Your task to perform on an android device: delete location history Image 0: 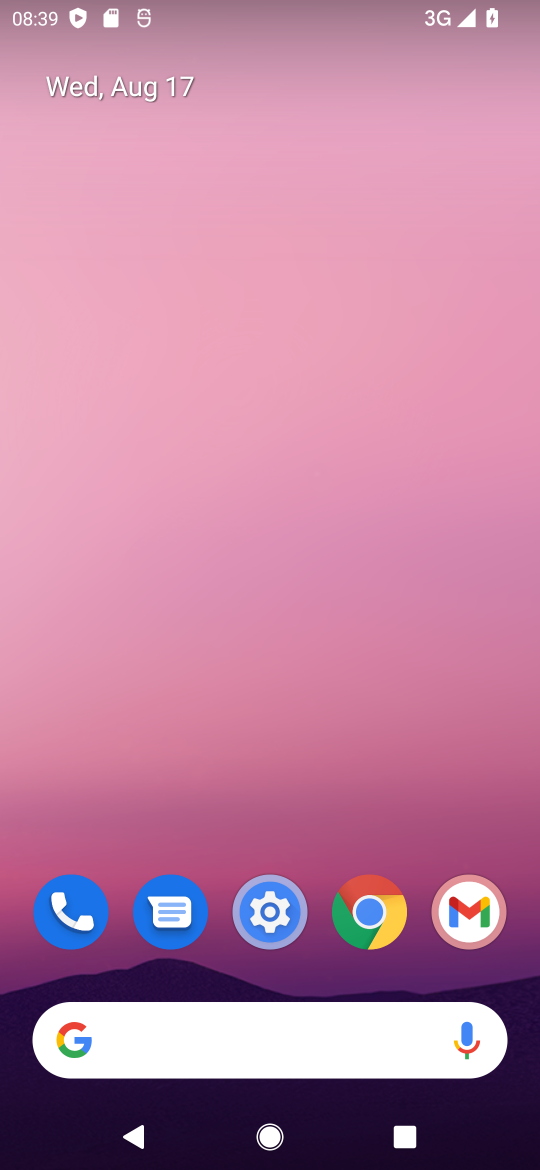
Step 0: click (272, 919)
Your task to perform on an android device: delete location history Image 1: 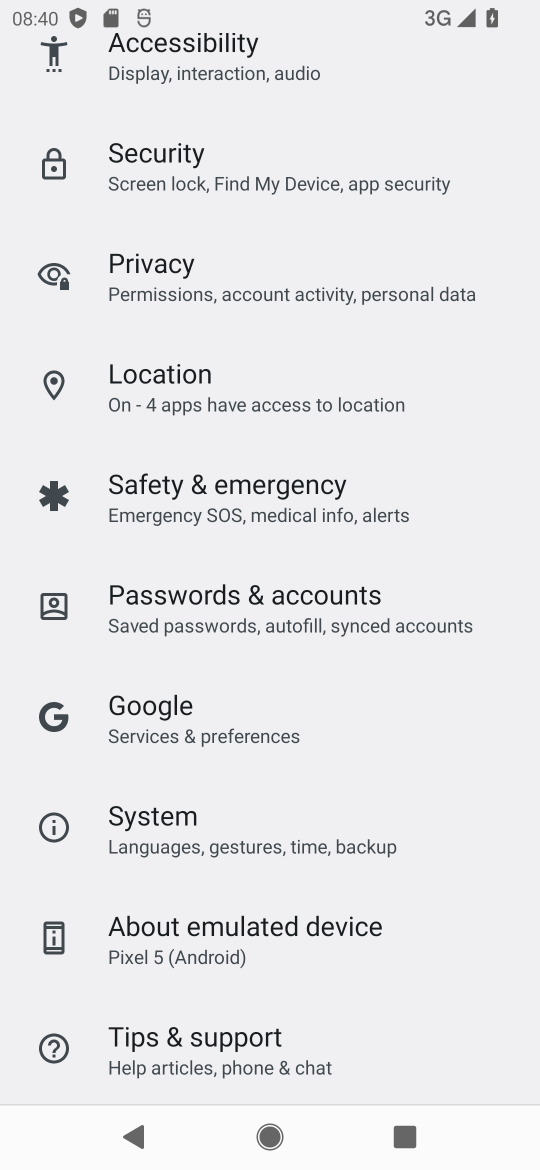
Step 1: click (147, 385)
Your task to perform on an android device: delete location history Image 2: 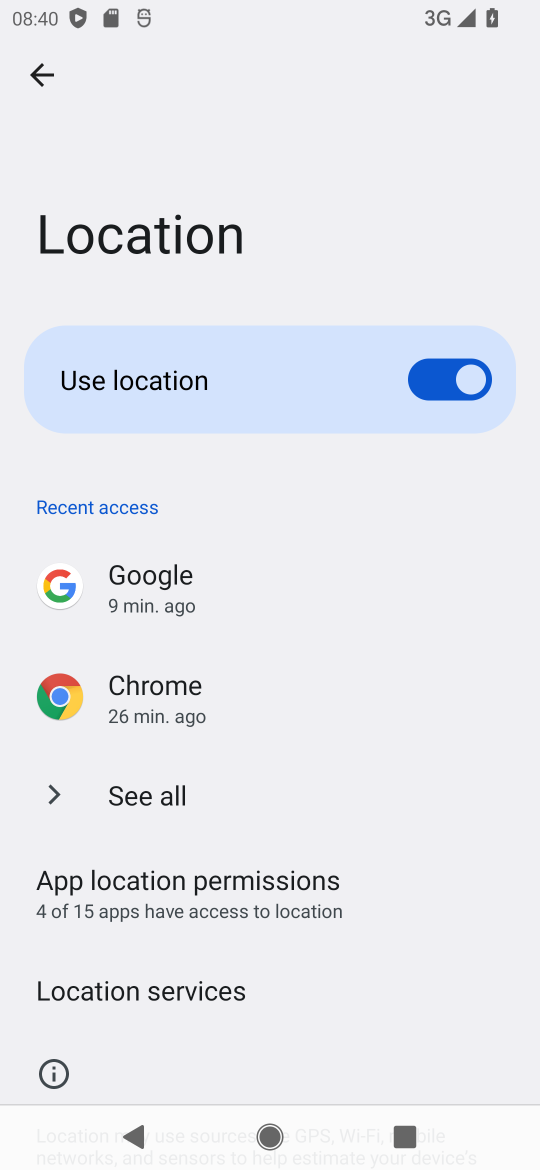
Step 2: drag from (125, 1014) to (125, 519)
Your task to perform on an android device: delete location history Image 3: 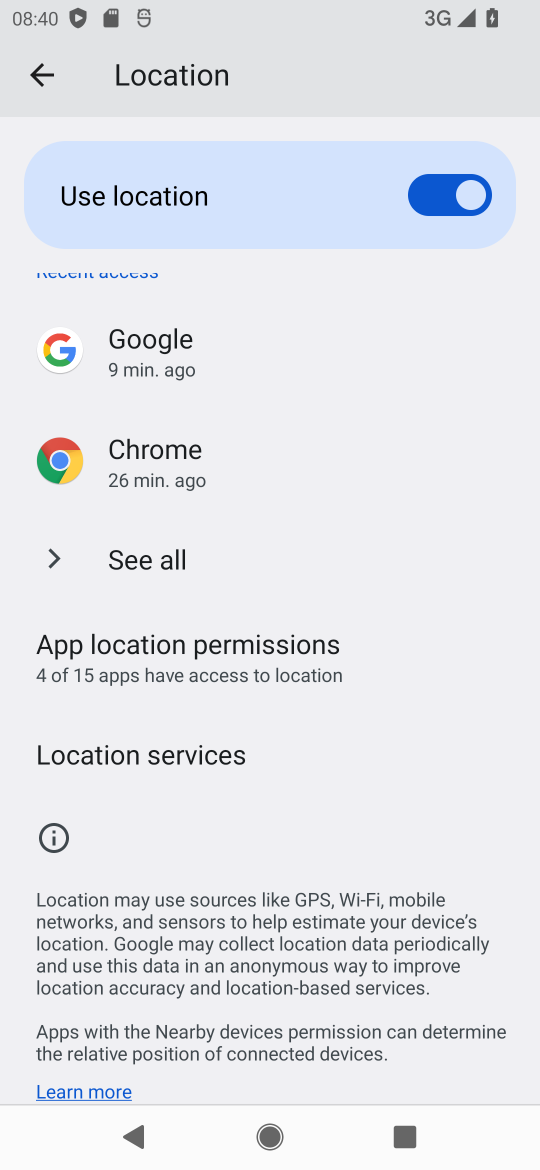
Step 3: click (166, 754)
Your task to perform on an android device: delete location history Image 4: 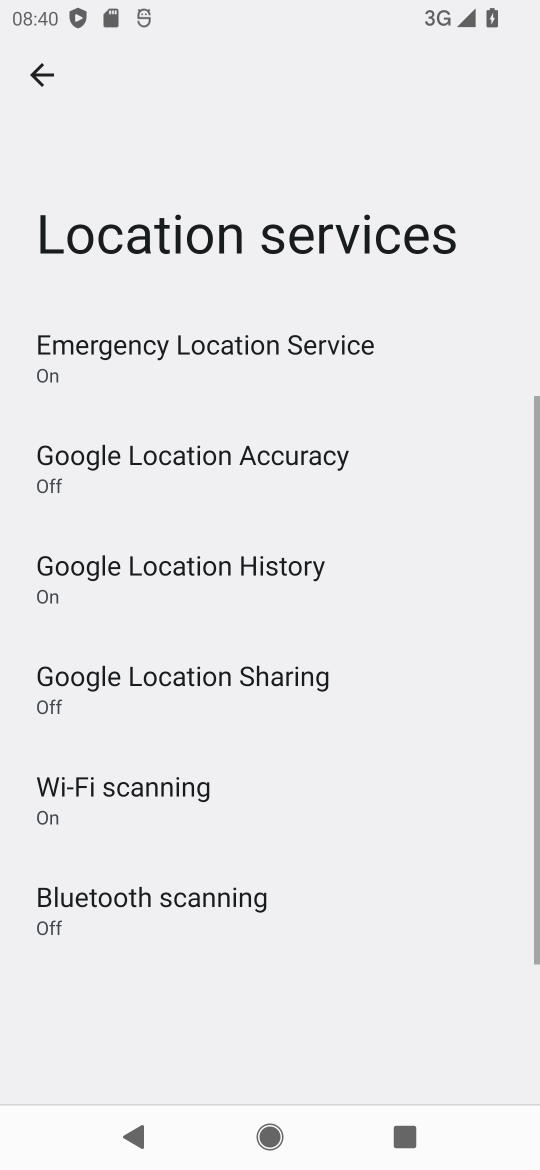
Step 4: click (187, 557)
Your task to perform on an android device: delete location history Image 5: 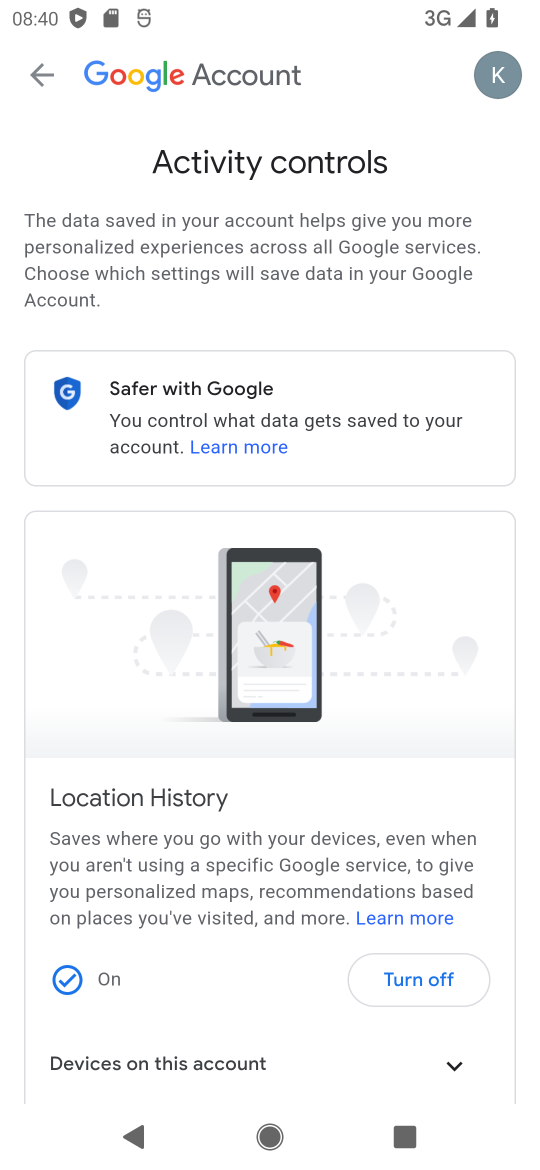
Step 5: drag from (247, 937) to (275, 455)
Your task to perform on an android device: delete location history Image 6: 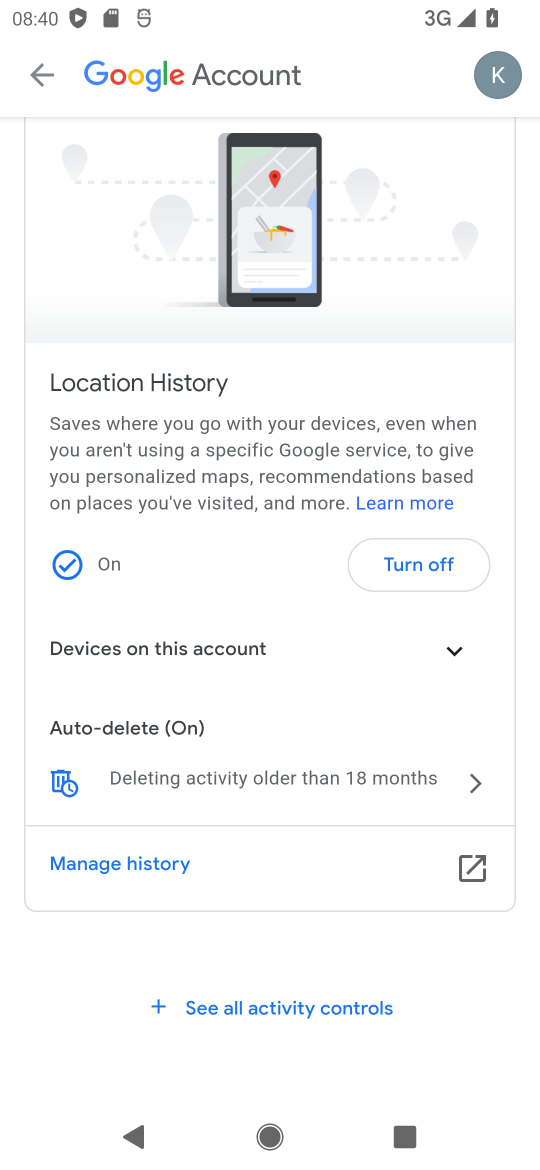
Step 6: click (166, 935)
Your task to perform on an android device: delete location history Image 7: 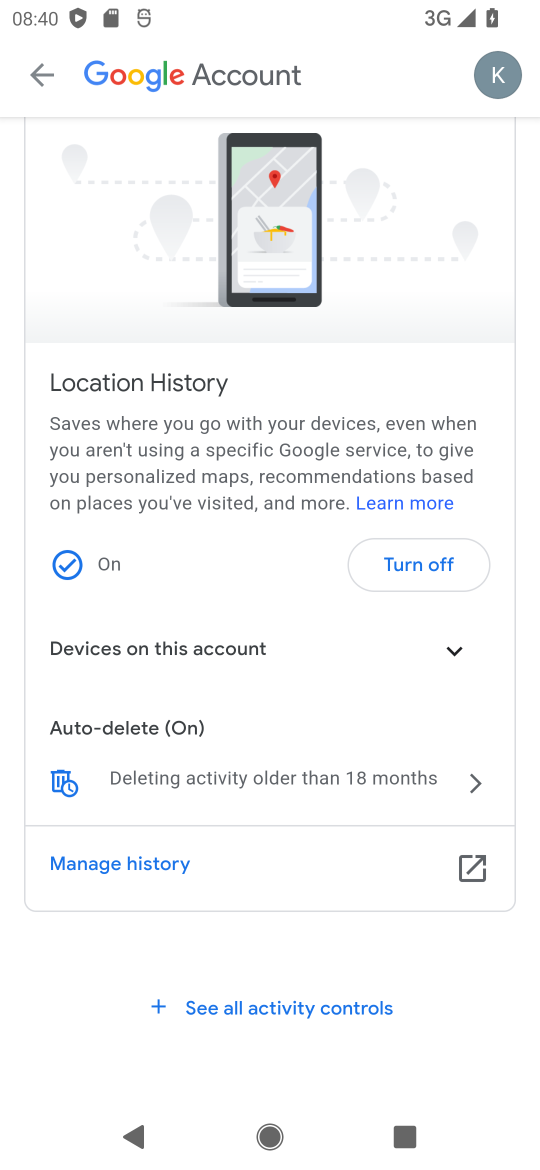
Step 7: click (160, 769)
Your task to perform on an android device: delete location history Image 8: 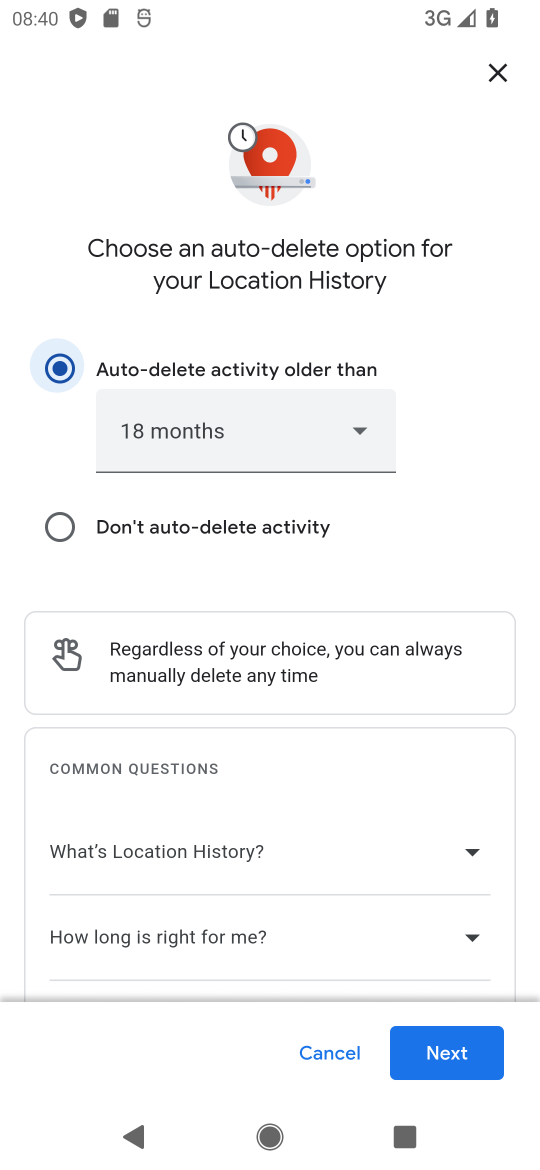
Step 8: click (459, 1052)
Your task to perform on an android device: delete location history Image 9: 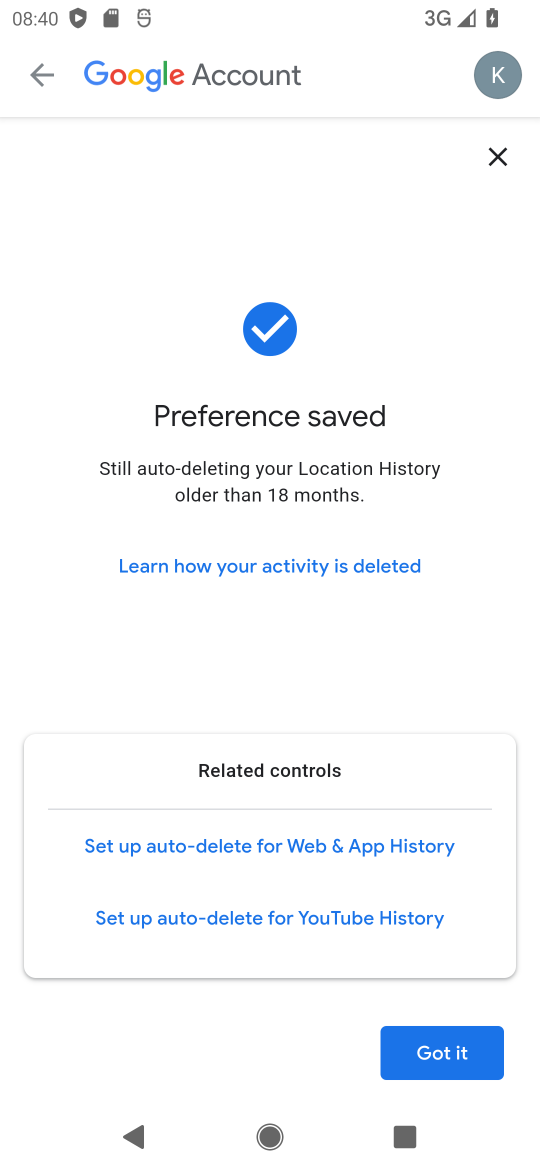
Step 9: click (421, 1064)
Your task to perform on an android device: delete location history Image 10: 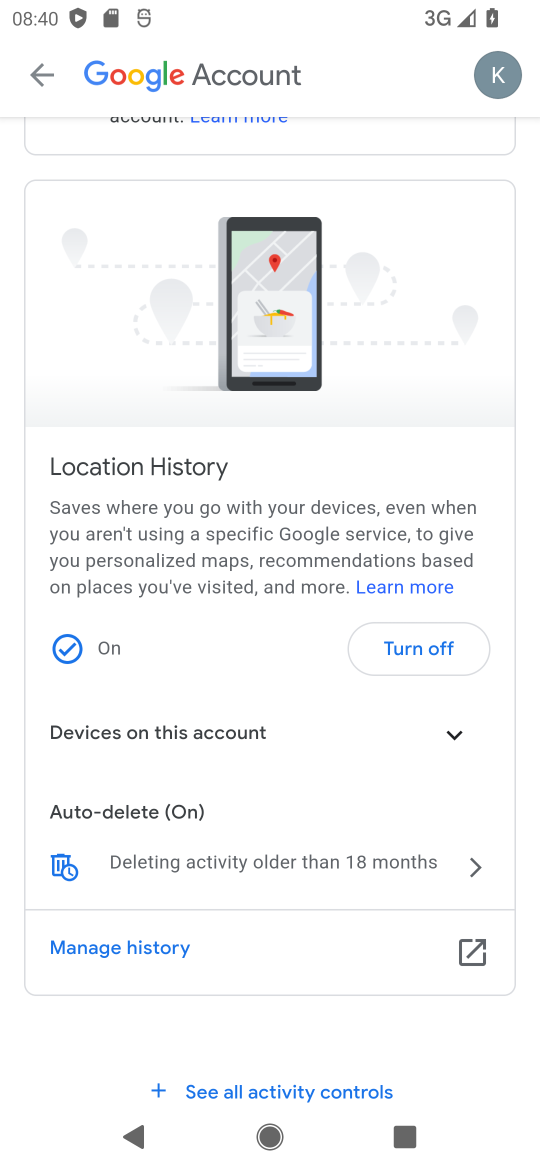
Step 10: task complete